Your task to perform on an android device: Open Android settings Image 0: 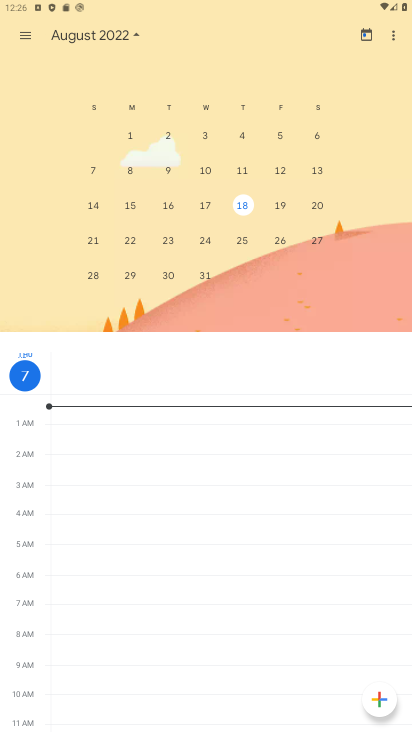
Step 0: press home button
Your task to perform on an android device: Open Android settings Image 1: 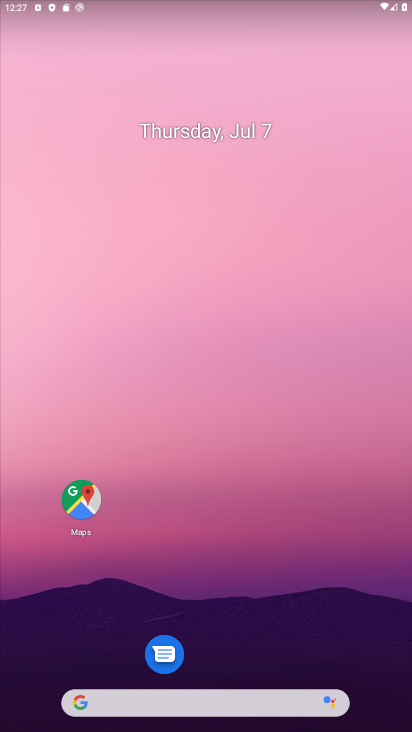
Step 1: drag from (233, 641) to (231, 138)
Your task to perform on an android device: Open Android settings Image 2: 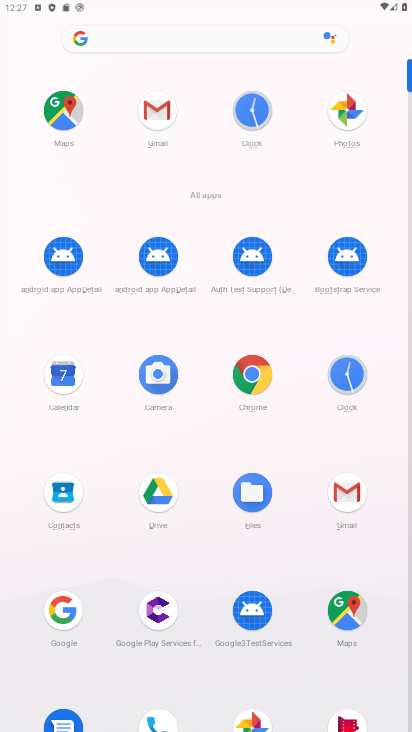
Step 2: drag from (200, 658) to (215, 317)
Your task to perform on an android device: Open Android settings Image 3: 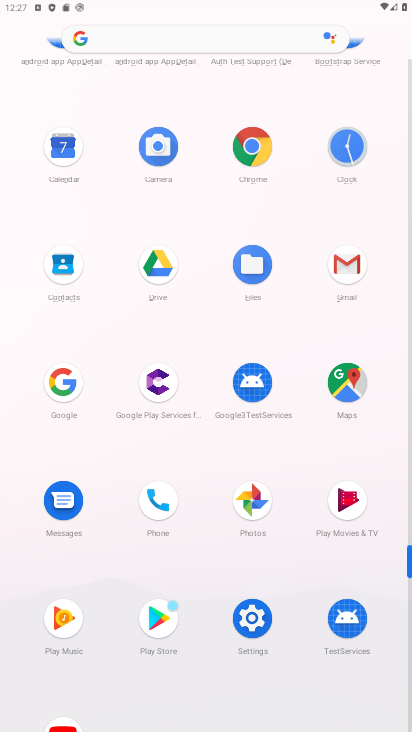
Step 3: click (257, 612)
Your task to perform on an android device: Open Android settings Image 4: 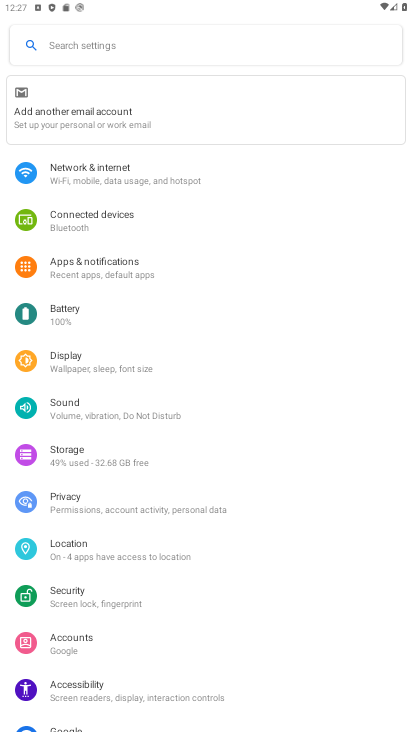
Step 4: task complete